Your task to perform on an android device: move a message to another label in the gmail app Image 0: 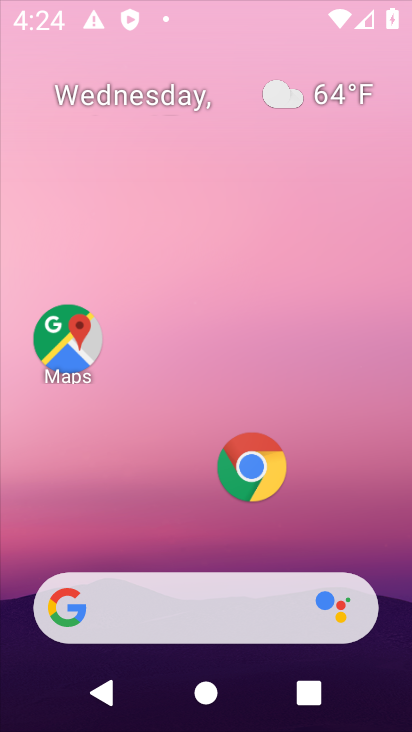
Step 0: click (76, 340)
Your task to perform on an android device: move a message to another label in the gmail app Image 1: 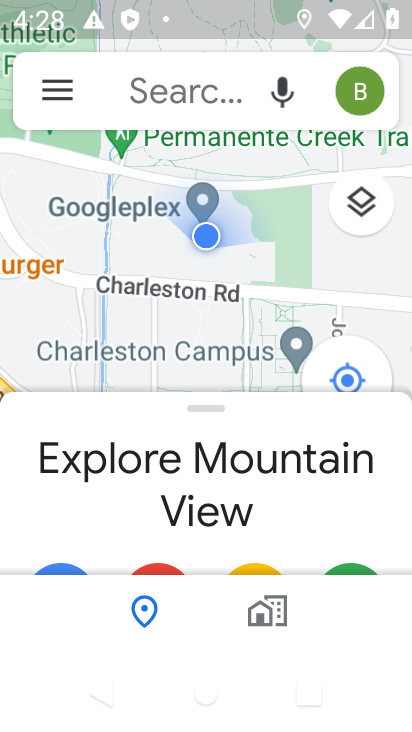
Step 1: task complete